Your task to perform on an android device: Open Amazon Image 0: 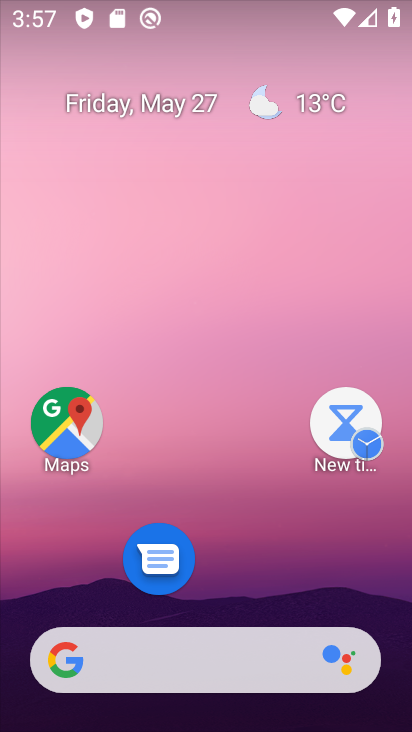
Step 0: drag from (346, 593) to (304, 404)
Your task to perform on an android device: Open Amazon Image 1: 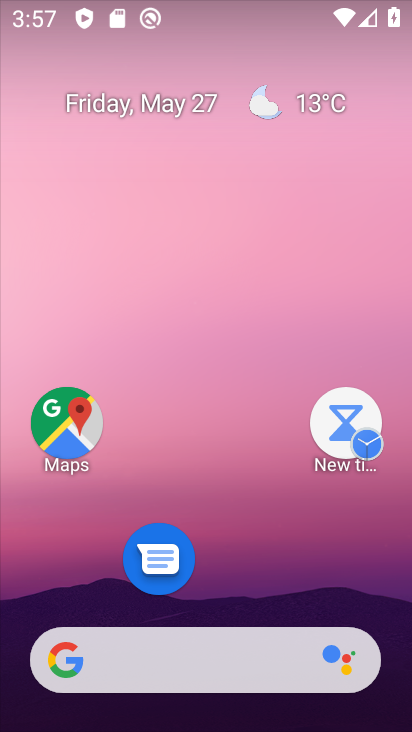
Step 1: click (214, 331)
Your task to perform on an android device: Open Amazon Image 2: 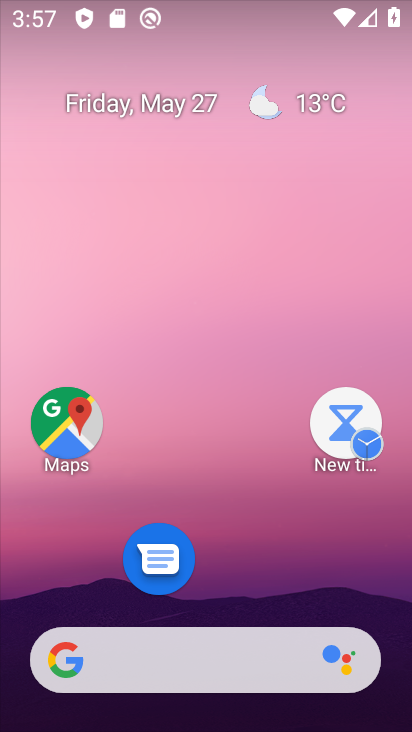
Step 2: drag from (240, 671) to (8, 271)
Your task to perform on an android device: Open Amazon Image 3: 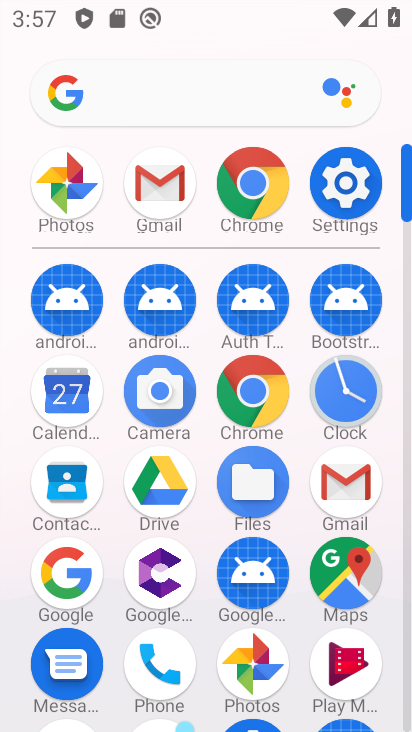
Step 3: click (253, 187)
Your task to perform on an android device: Open Amazon Image 4: 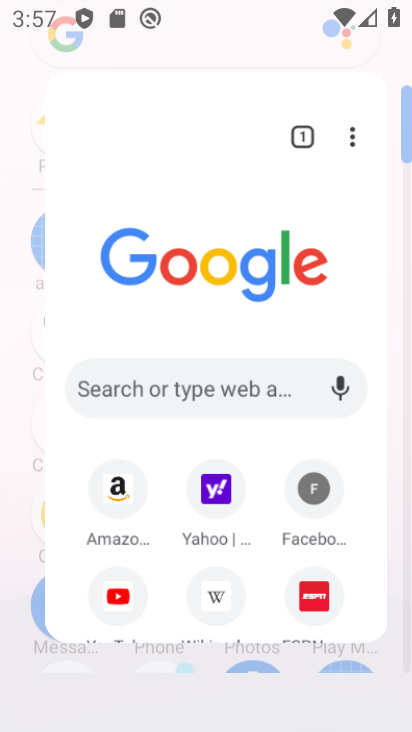
Step 4: click (254, 187)
Your task to perform on an android device: Open Amazon Image 5: 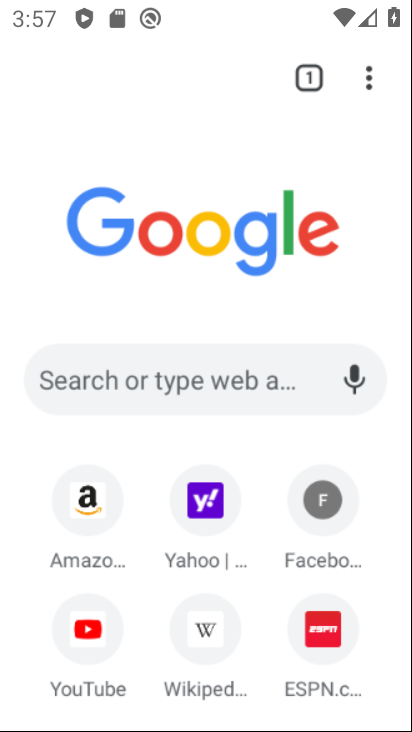
Step 5: click (254, 187)
Your task to perform on an android device: Open Amazon Image 6: 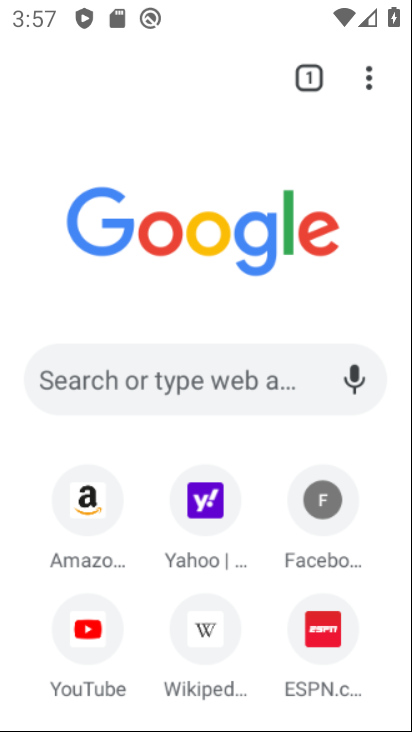
Step 6: click (254, 187)
Your task to perform on an android device: Open Amazon Image 7: 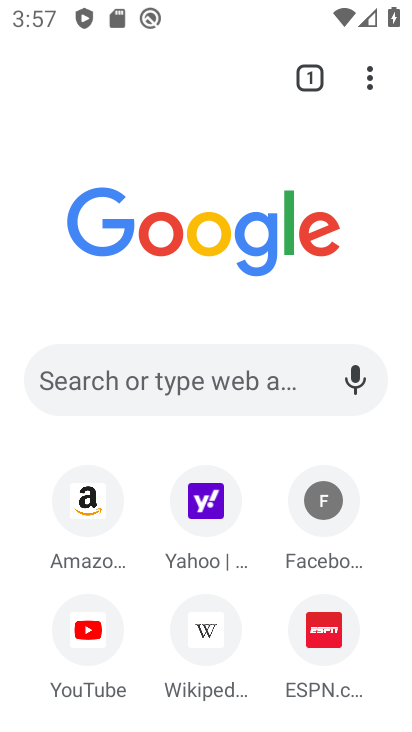
Step 7: click (78, 497)
Your task to perform on an android device: Open Amazon Image 8: 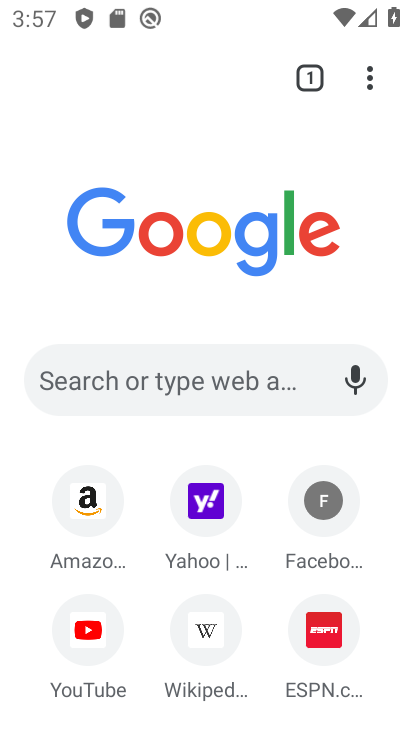
Step 8: click (80, 498)
Your task to perform on an android device: Open Amazon Image 9: 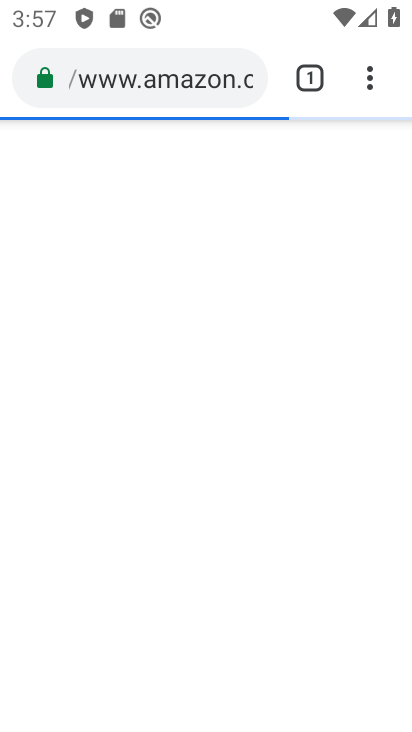
Step 9: click (81, 499)
Your task to perform on an android device: Open Amazon Image 10: 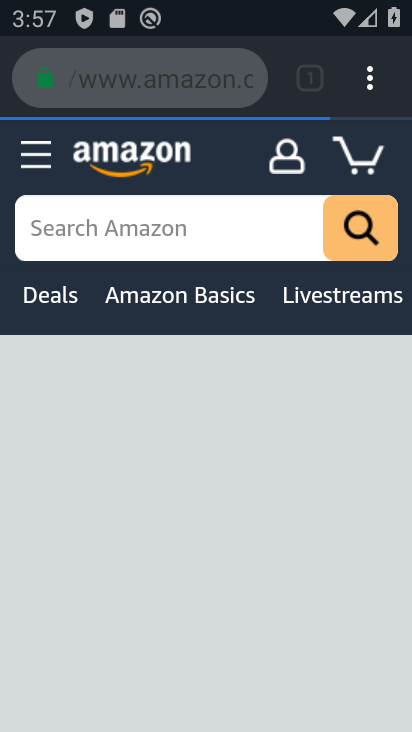
Step 10: click (82, 500)
Your task to perform on an android device: Open Amazon Image 11: 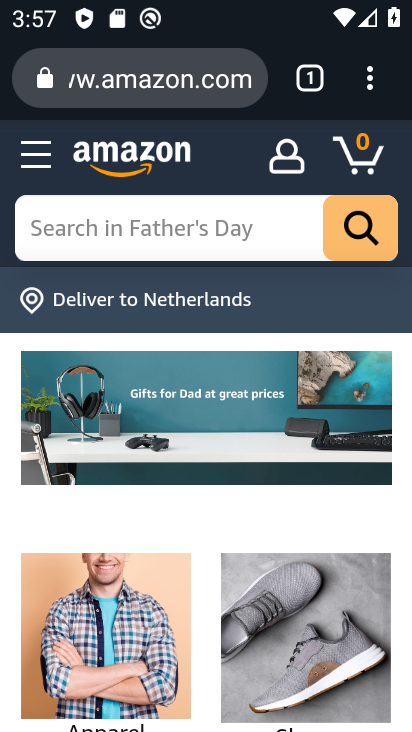
Step 11: task complete